Your task to perform on an android device: turn on bluetooth scan Image 0: 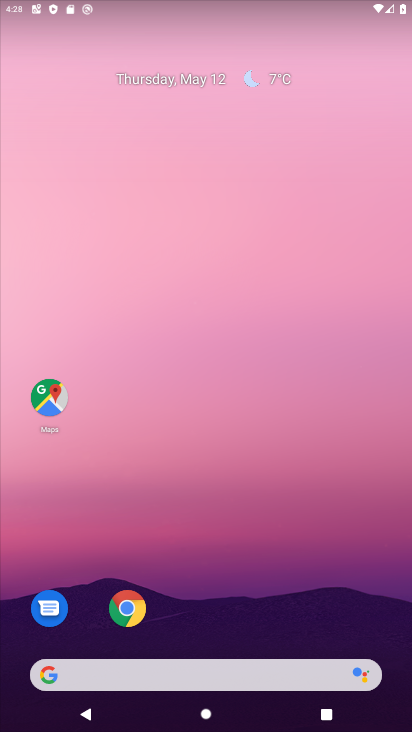
Step 0: drag from (208, 630) to (224, 127)
Your task to perform on an android device: turn on bluetooth scan Image 1: 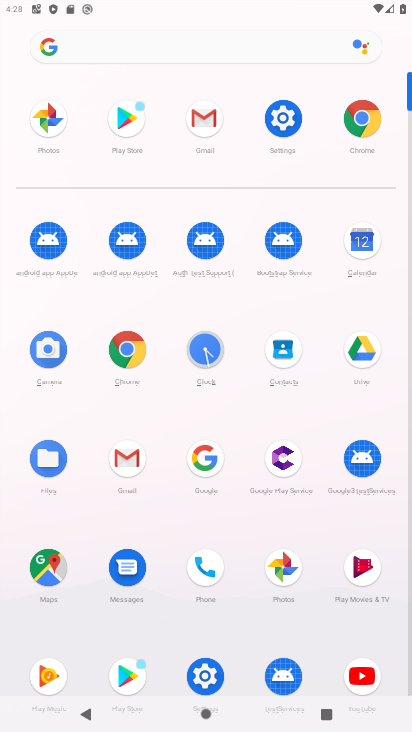
Step 1: click (286, 118)
Your task to perform on an android device: turn on bluetooth scan Image 2: 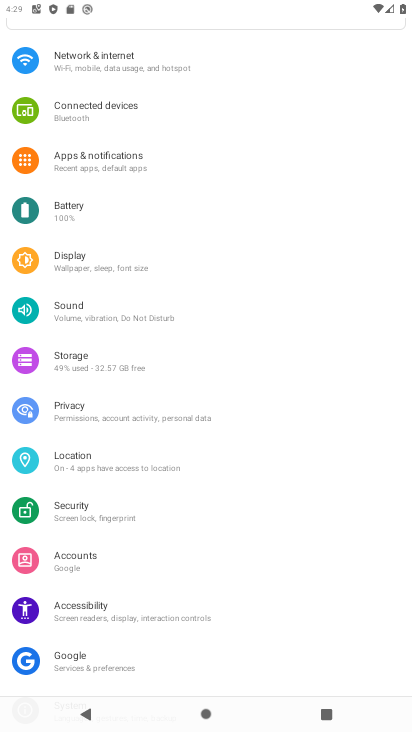
Step 2: click (83, 467)
Your task to perform on an android device: turn on bluetooth scan Image 3: 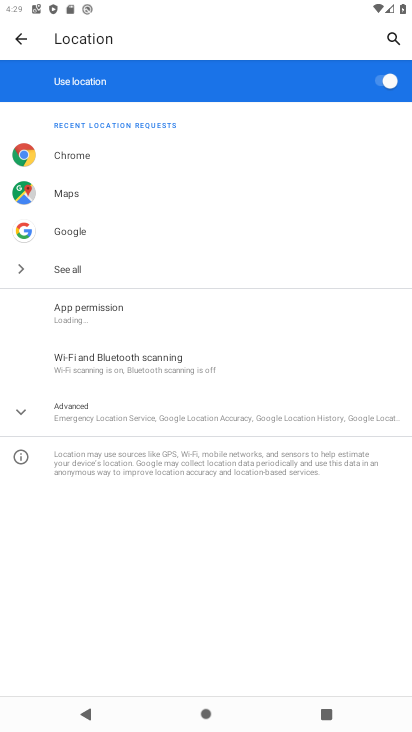
Step 3: click (114, 374)
Your task to perform on an android device: turn on bluetooth scan Image 4: 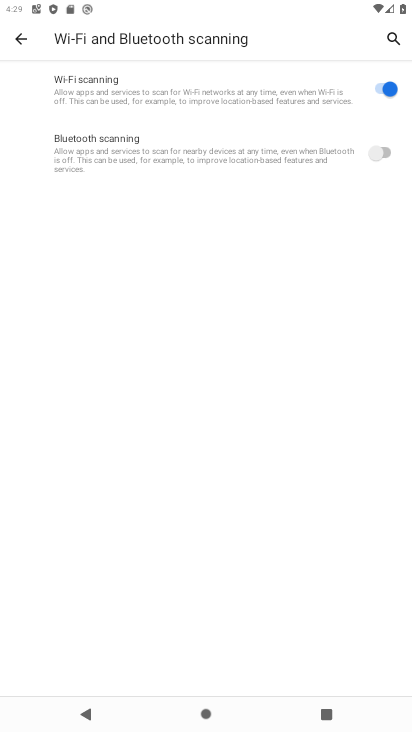
Step 4: click (389, 153)
Your task to perform on an android device: turn on bluetooth scan Image 5: 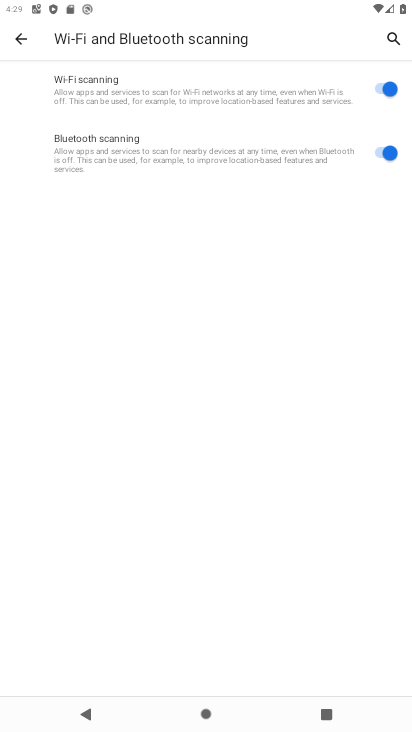
Step 5: task complete